Your task to perform on an android device: Is it going to rain this weekend? Image 0: 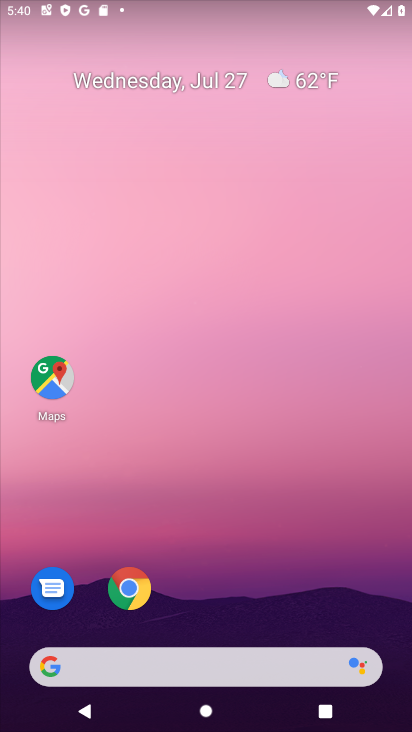
Step 0: click (184, 664)
Your task to perform on an android device: Is it going to rain this weekend? Image 1: 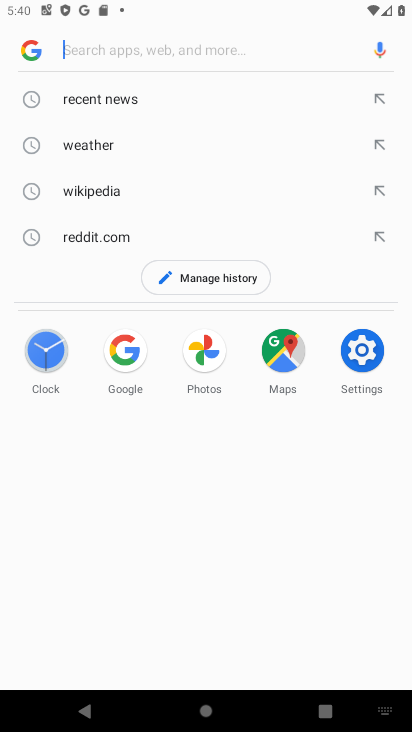
Step 1: click (92, 142)
Your task to perform on an android device: Is it going to rain this weekend? Image 2: 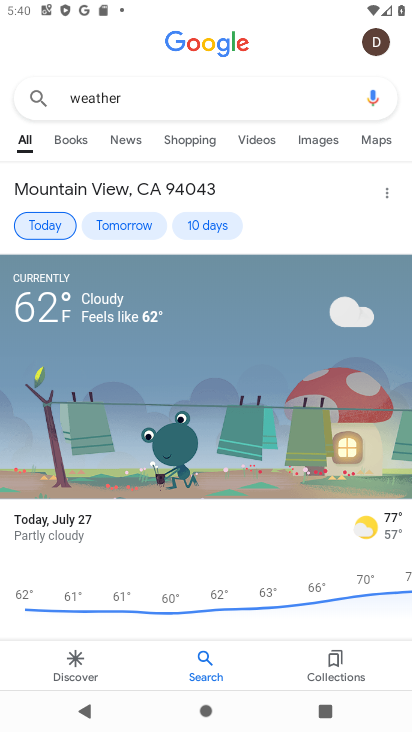
Step 2: click (118, 221)
Your task to perform on an android device: Is it going to rain this weekend? Image 3: 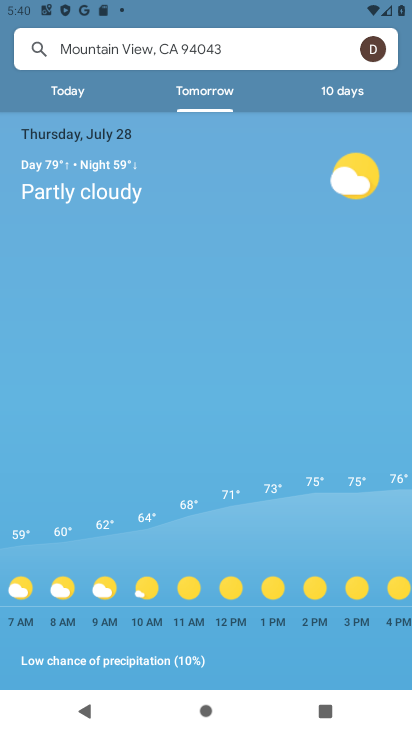
Step 3: click (341, 86)
Your task to perform on an android device: Is it going to rain this weekend? Image 4: 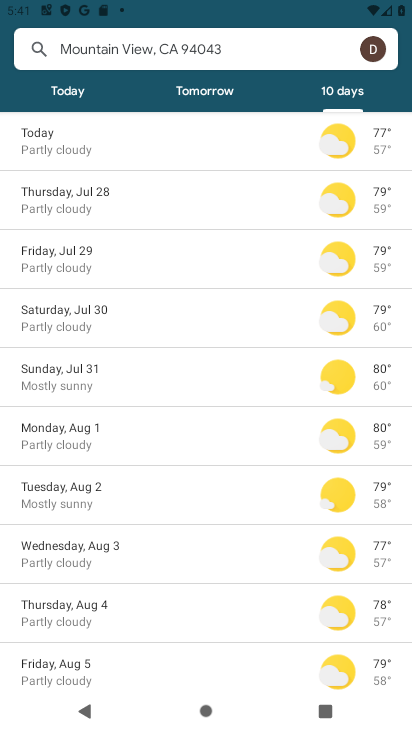
Step 4: task complete